Your task to perform on an android device: delete browsing data in the chrome app Image 0: 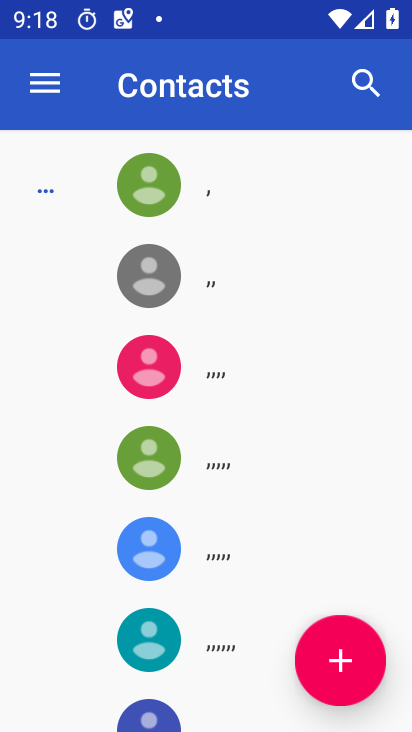
Step 0: press home button
Your task to perform on an android device: delete browsing data in the chrome app Image 1: 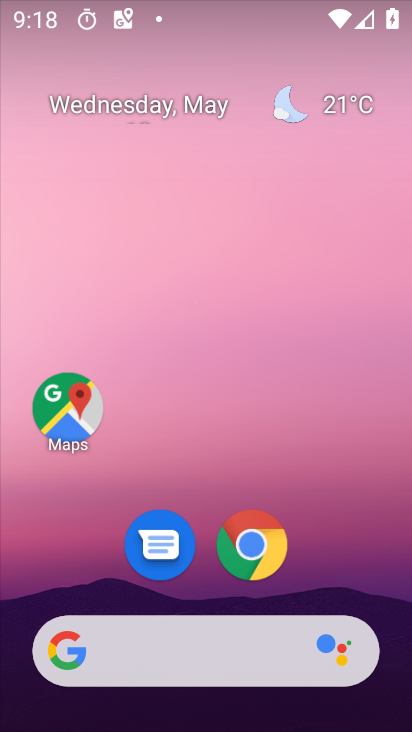
Step 1: click (262, 538)
Your task to perform on an android device: delete browsing data in the chrome app Image 2: 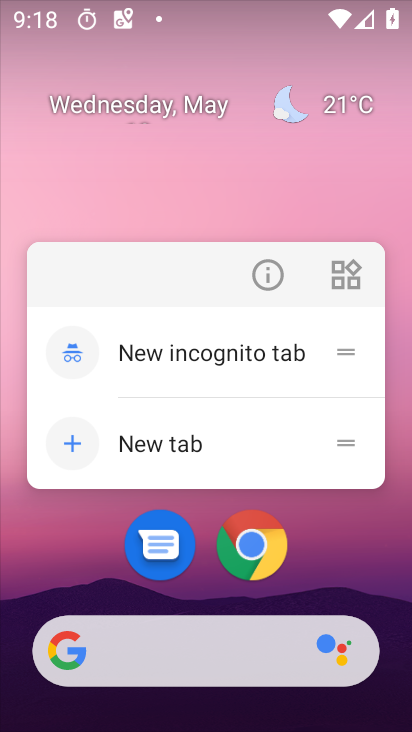
Step 2: click (257, 546)
Your task to perform on an android device: delete browsing data in the chrome app Image 3: 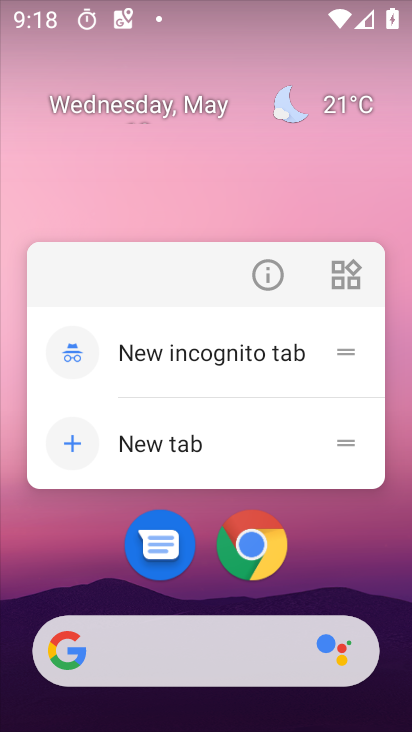
Step 3: click (257, 546)
Your task to perform on an android device: delete browsing data in the chrome app Image 4: 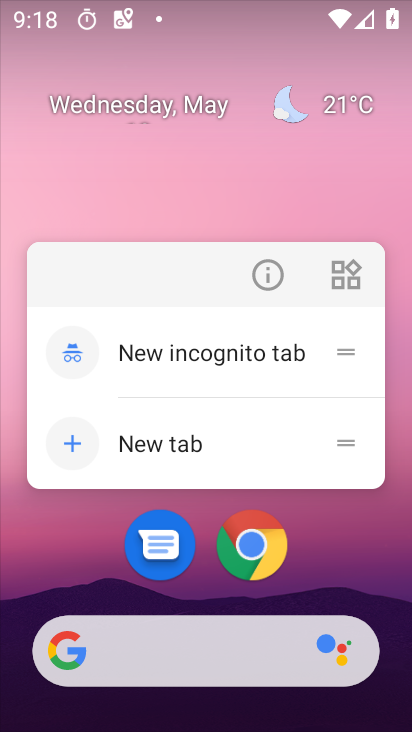
Step 4: click (256, 549)
Your task to perform on an android device: delete browsing data in the chrome app Image 5: 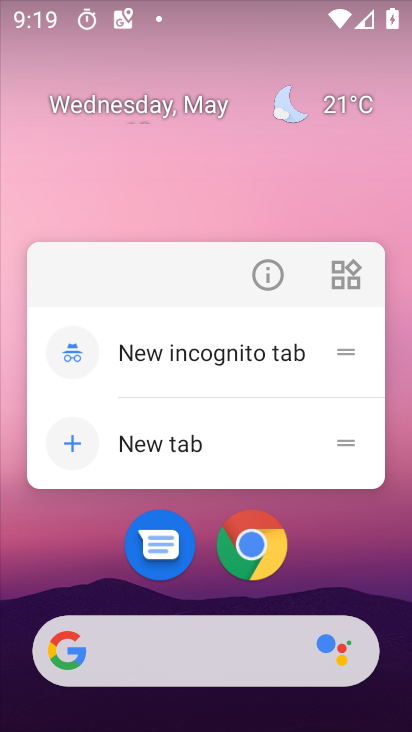
Step 5: click (254, 523)
Your task to perform on an android device: delete browsing data in the chrome app Image 6: 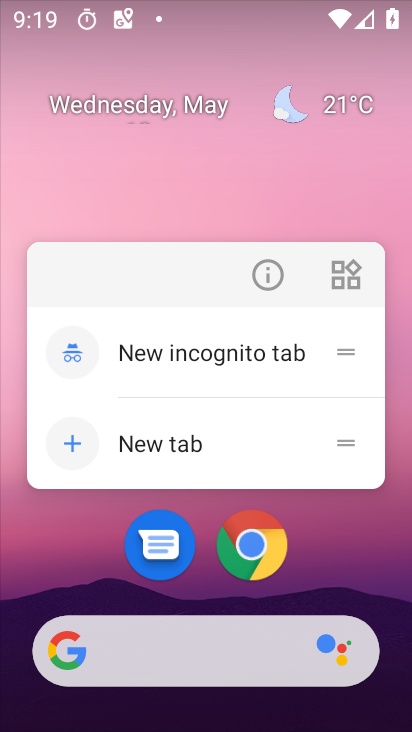
Step 6: click (246, 542)
Your task to perform on an android device: delete browsing data in the chrome app Image 7: 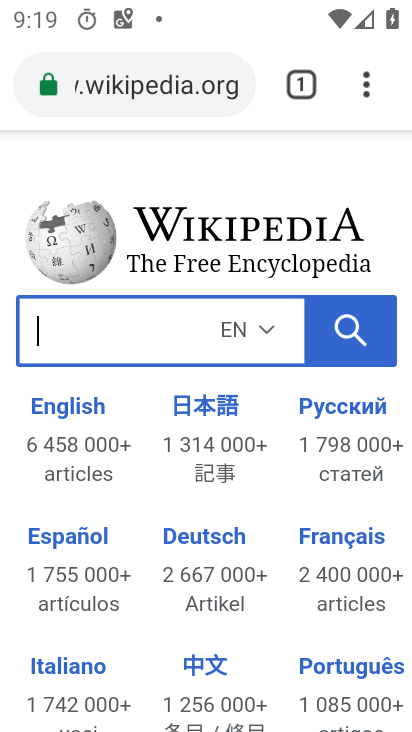
Step 7: click (364, 81)
Your task to perform on an android device: delete browsing data in the chrome app Image 8: 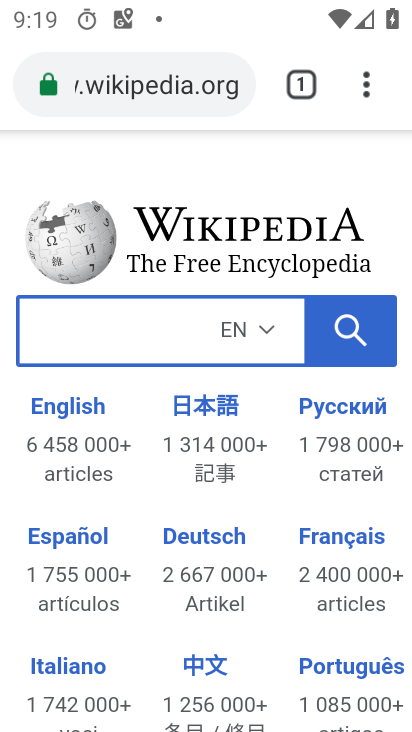
Step 8: click (366, 95)
Your task to perform on an android device: delete browsing data in the chrome app Image 9: 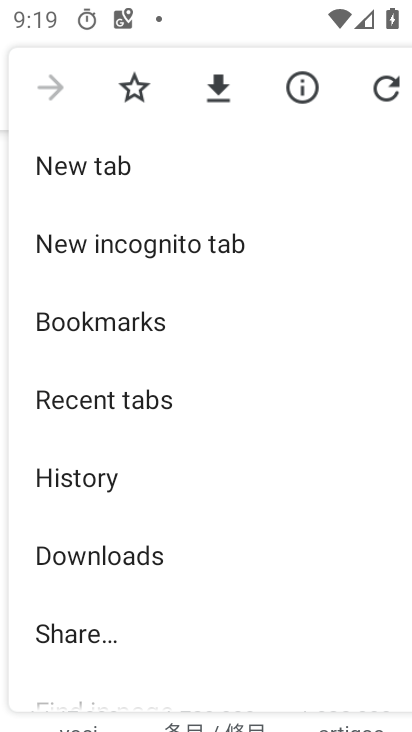
Step 9: click (108, 460)
Your task to perform on an android device: delete browsing data in the chrome app Image 10: 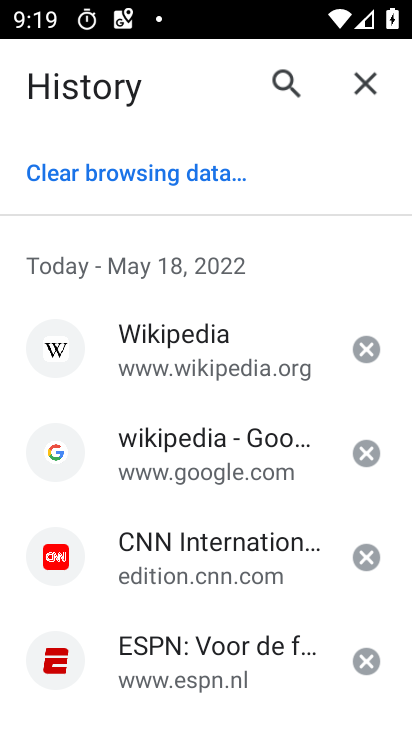
Step 10: click (82, 177)
Your task to perform on an android device: delete browsing data in the chrome app Image 11: 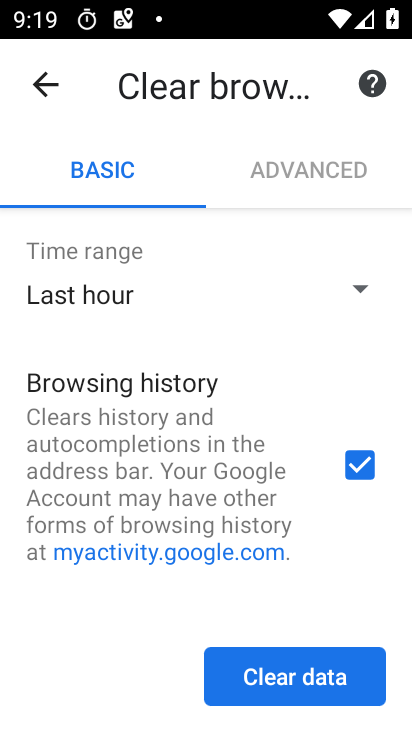
Step 11: click (301, 682)
Your task to perform on an android device: delete browsing data in the chrome app Image 12: 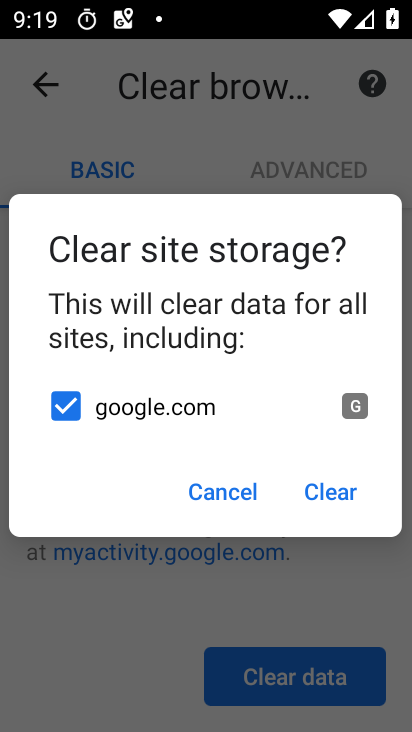
Step 12: click (335, 496)
Your task to perform on an android device: delete browsing data in the chrome app Image 13: 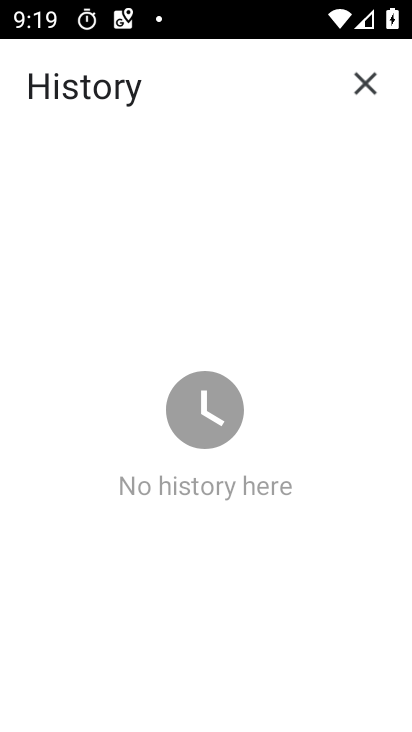
Step 13: task complete